Your task to perform on an android device: Open maps Image 0: 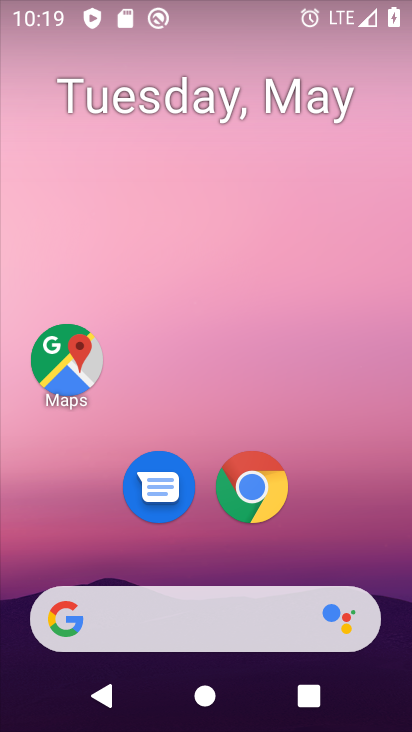
Step 0: drag from (206, 550) to (261, 173)
Your task to perform on an android device: Open maps Image 1: 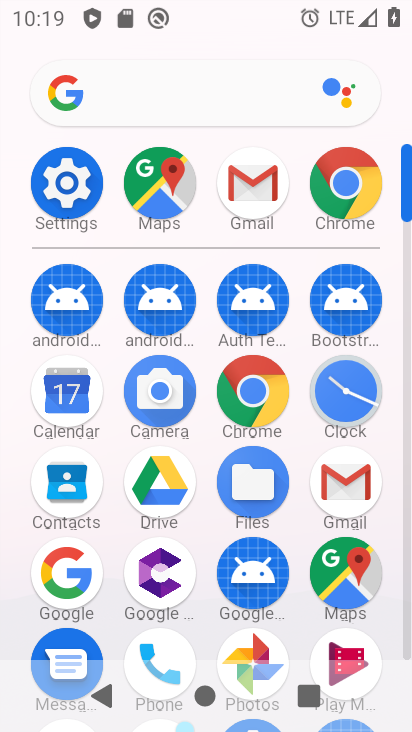
Step 1: click (351, 580)
Your task to perform on an android device: Open maps Image 2: 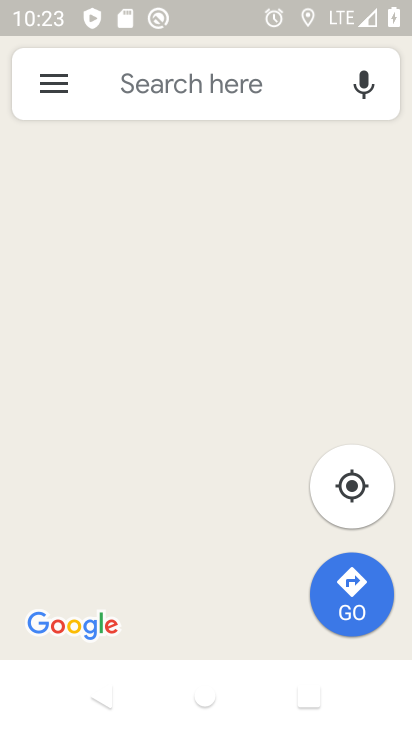
Step 2: task complete